Your task to perform on an android device: see tabs open on other devices in the chrome app Image 0: 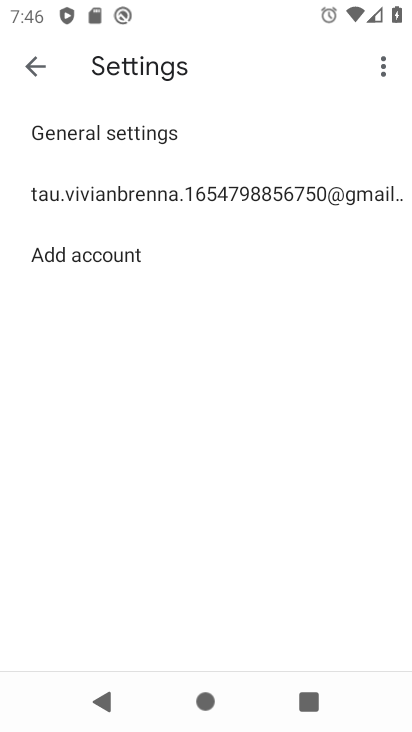
Step 0: press home button
Your task to perform on an android device: see tabs open on other devices in the chrome app Image 1: 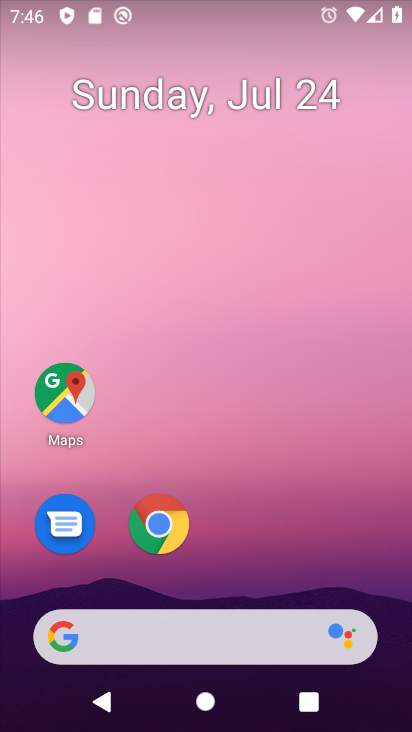
Step 1: click (151, 524)
Your task to perform on an android device: see tabs open on other devices in the chrome app Image 2: 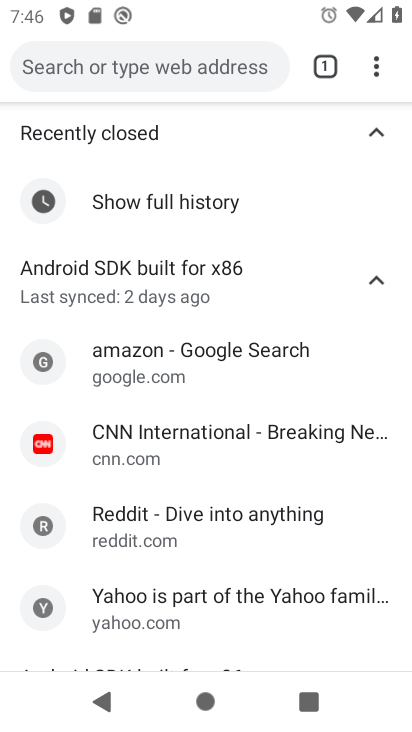
Step 2: task complete